Your task to perform on an android device: turn off javascript in the chrome app Image 0: 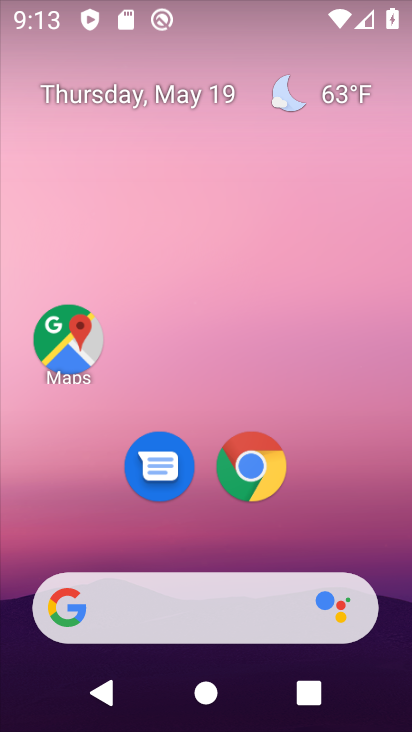
Step 0: drag from (393, 640) to (260, 130)
Your task to perform on an android device: turn off javascript in the chrome app Image 1: 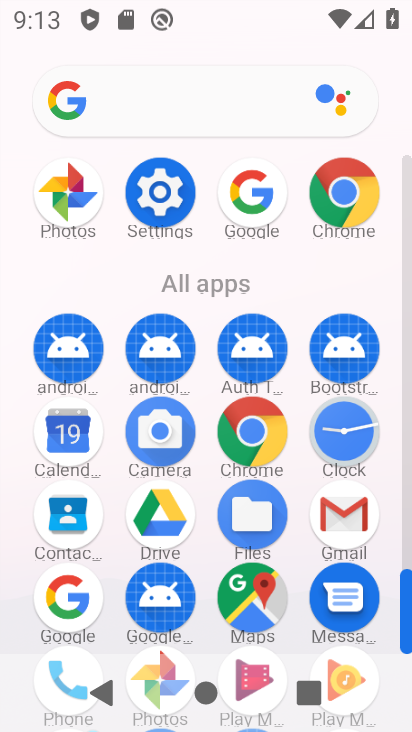
Step 1: click (347, 200)
Your task to perform on an android device: turn off javascript in the chrome app Image 2: 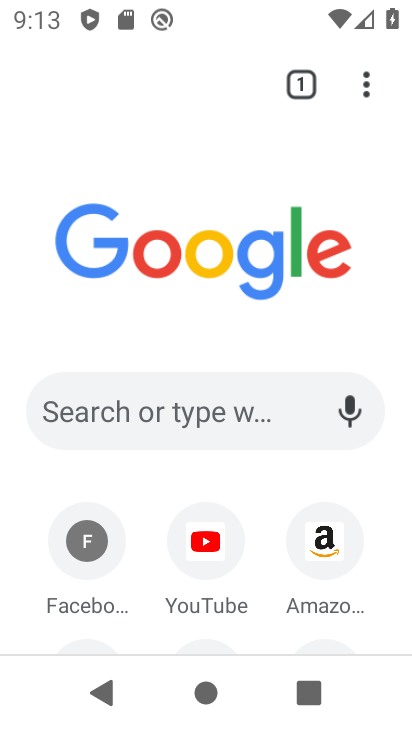
Step 2: click (364, 77)
Your task to perform on an android device: turn off javascript in the chrome app Image 3: 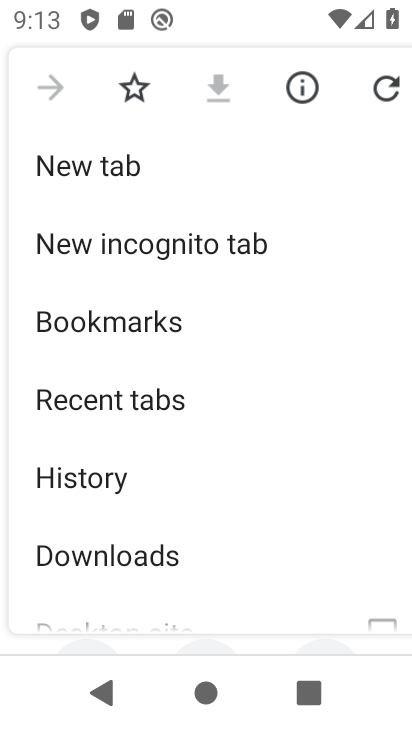
Step 3: drag from (186, 576) to (194, 192)
Your task to perform on an android device: turn off javascript in the chrome app Image 4: 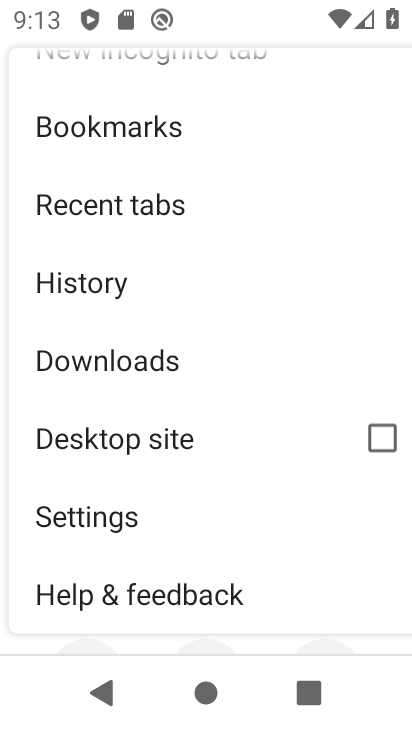
Step 4: click (123, 517)
Your task to perform on an android device: turn off javascript in the chrome app Image 5: 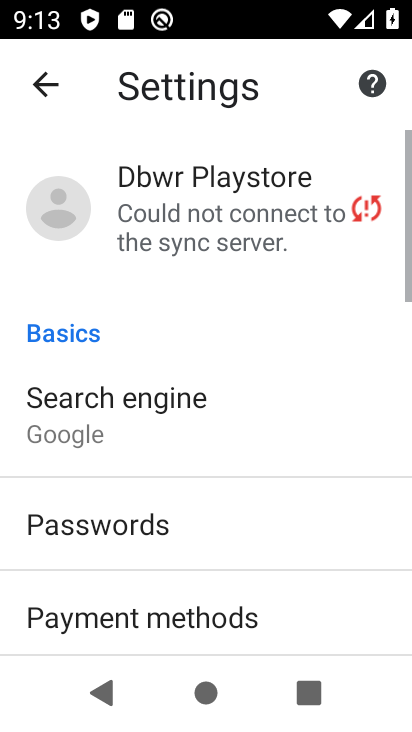
Step 5: drag from (191, 586) to (243, 163)
Your task to perform on an android device: turn off javascript in the chrome app Image 6: 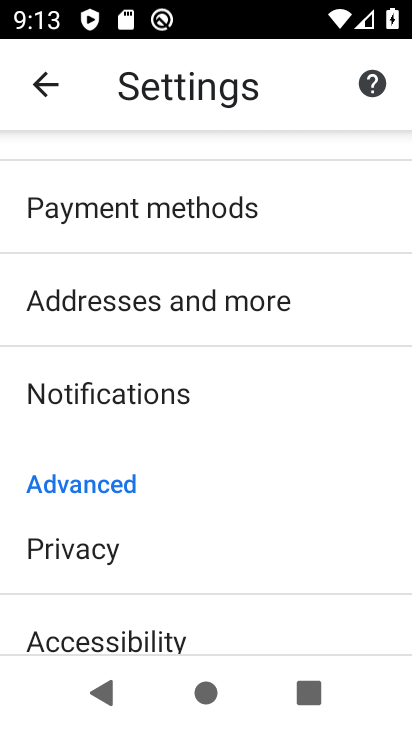
Step 6: drag from (187, 629) to (199, 251)
Your task to perform on an android device: turn off javascript in the chrome app Image 7: 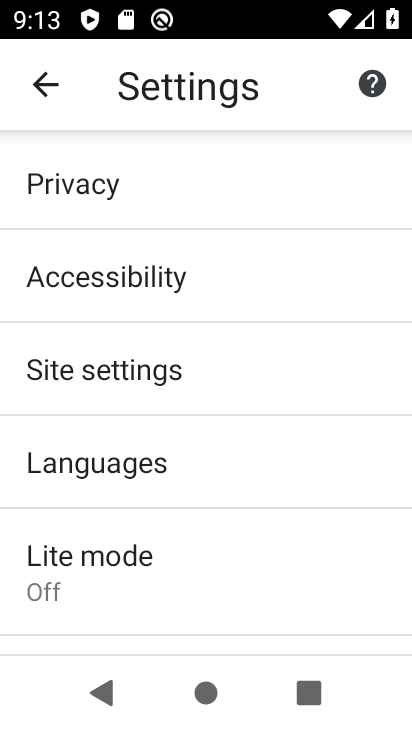
Step 7: click (161, 377)
Your task to perform on an android device: turn off javascript in the chrome app Image 8: 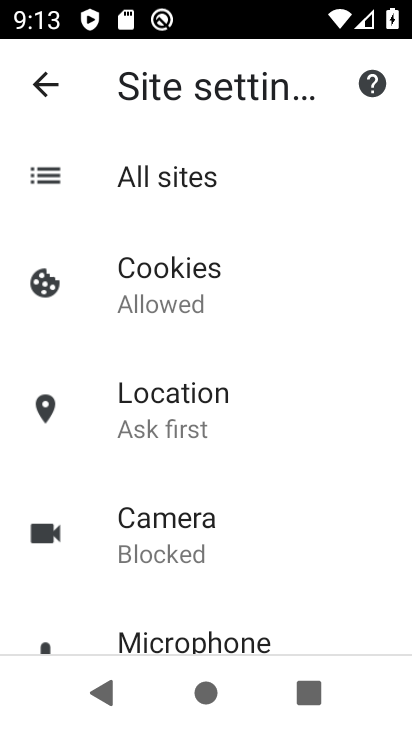
Step 8: drag from (221, 598) to (256, 212)
Your task to perform on an android device: turn off javascript in the chrome app Image 9: 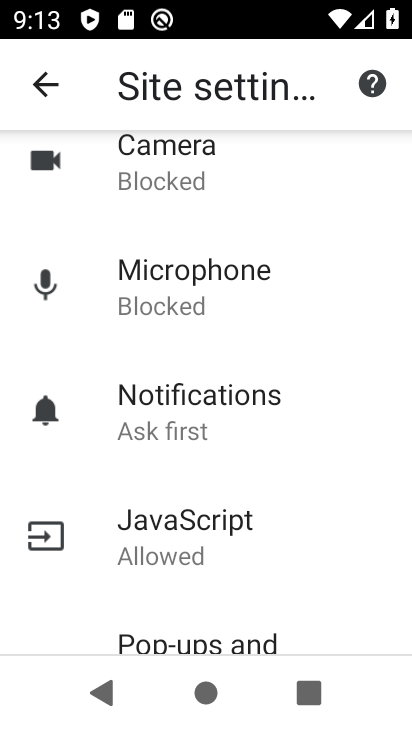
Step 9: click (248, 521)
Your task to perform on an android device: turn off javascript in the chrome app Image 10: 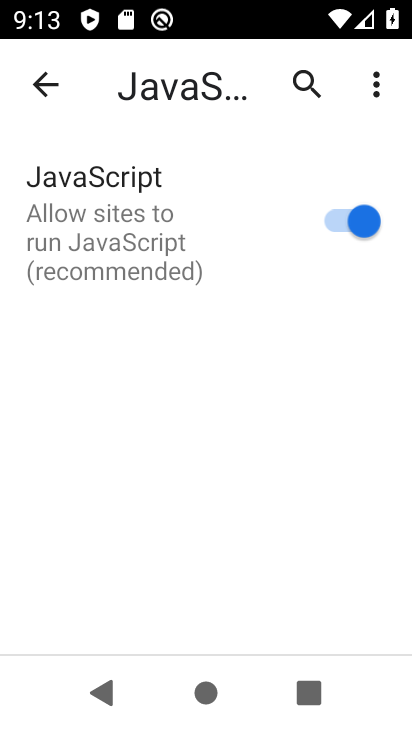
Step 10: click (316, 243)
Your task to perform on an android device: turn off javascript in the chrome app Image 11: 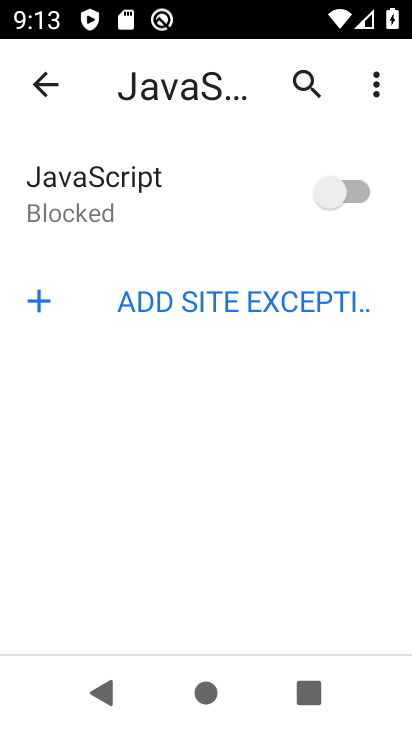
Step 11: task complete